Your task to perform on an android device: open a bookmark in the chrome app Image 0: 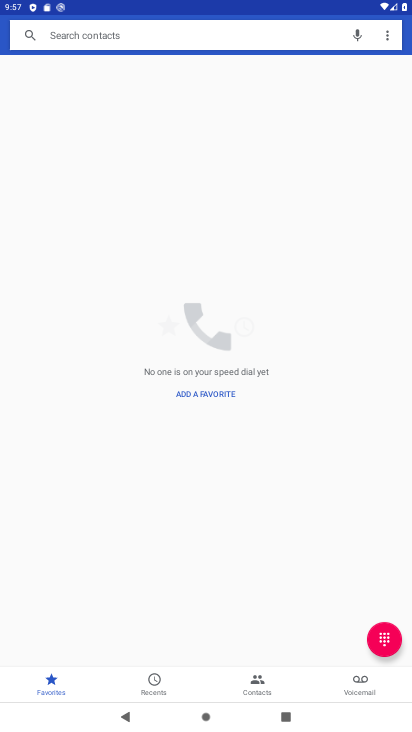
Step 0: press home button
Your task to perform on an android device: open a bookmark in the chrome app Image 1: 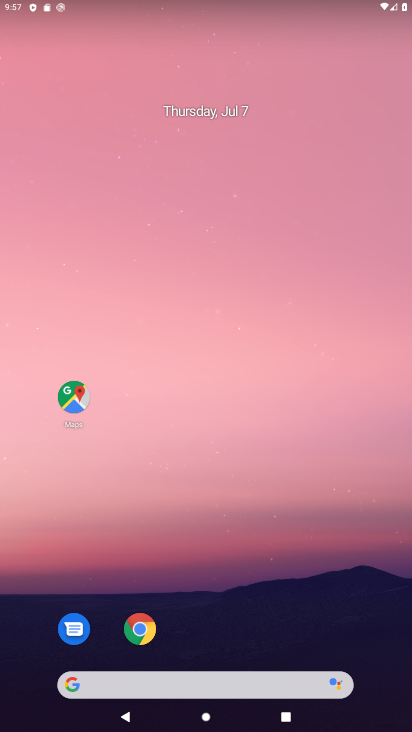
Step 1: drag from (227, 609) to (263, 0)
Your task to perform on an android device: open a bookmark in the chrome app Image 2: 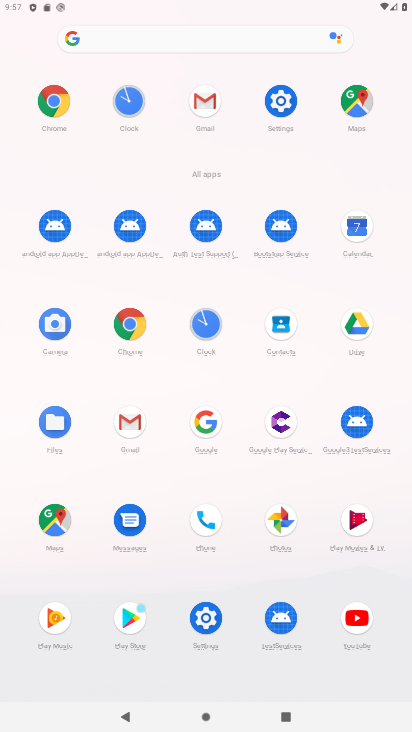
Step 2: click (57, 95)
Your task to perform on an android device: open a bookmark in the chrome app Image 3: 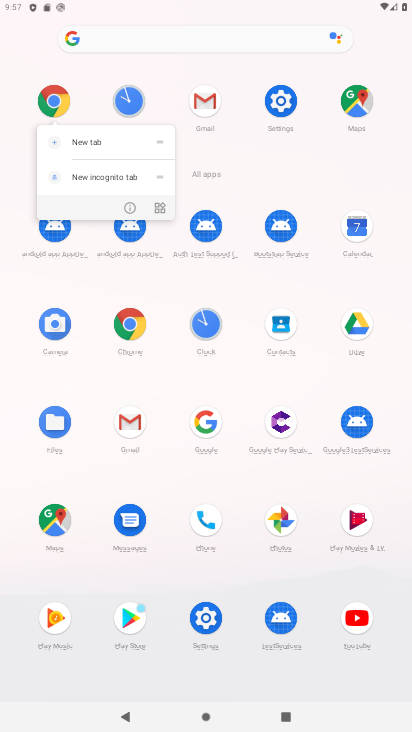
Step 3: click (58, 94)
Your task to perform on an android device: open a bookmark in the chrome app Image 4: 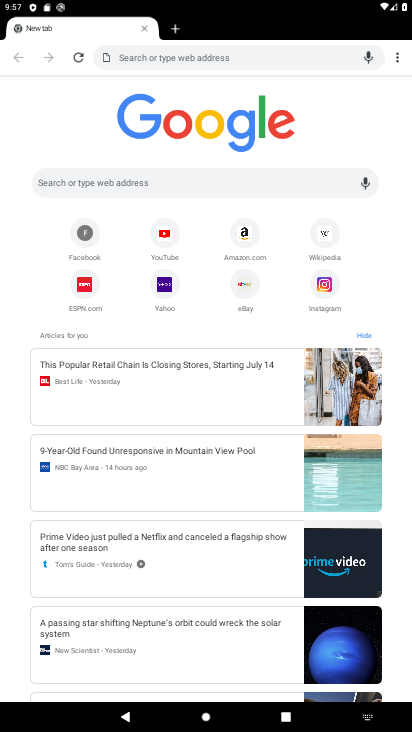
Step 4: click (395, 60)
Your task to perform on an android device: open a bookmark in the chrome app Image 5: 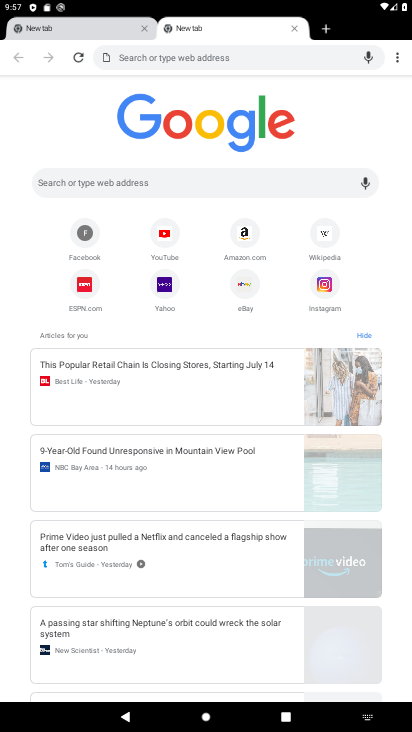
Step 5: task complete